Your task to perform on an android device: Search for vegetarian restaurants on Maps Image 0: 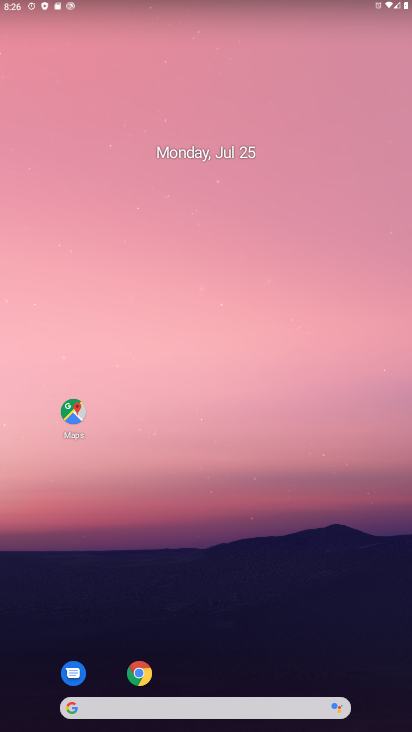
Step 0: drag from (315, 593) to (40, 61)
Your task to perform on an android device: Search for vegetarian restaurants on Maps Image 1: 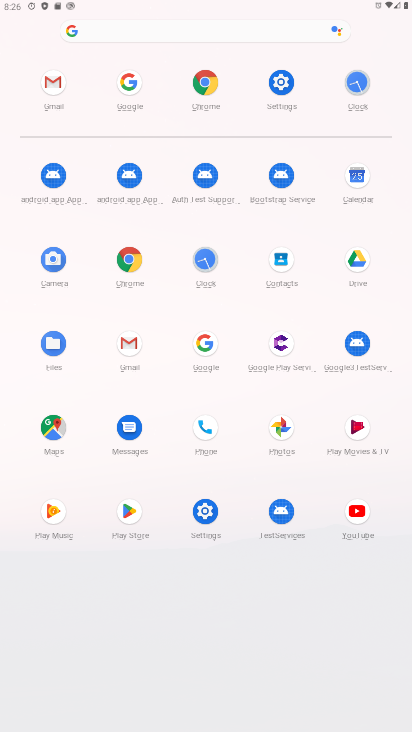
Step 1: click (59, 435)
Your task to perform on an android device: Search for vegetarian restaurants on Maps Image 2: 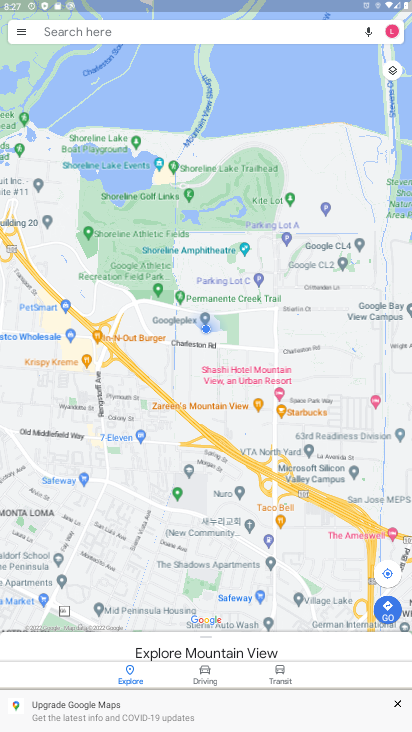
Step 2: click (157, 27)
Your task to perform on an android device: Search for vegetarian restaurants on Maps Image 3: 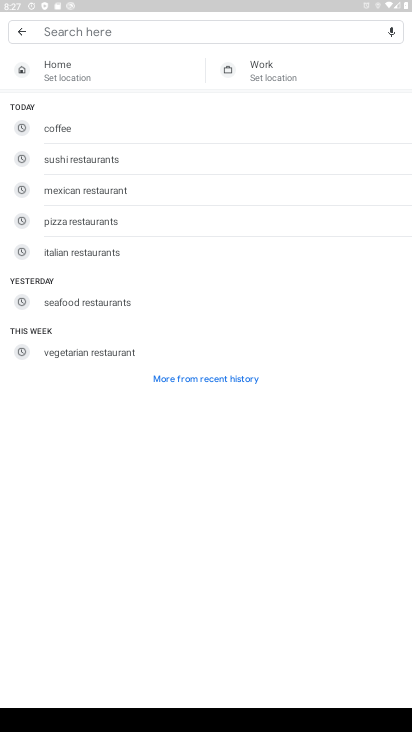
Step 3: click (86, 352)
Your task to perform on an android device: Search for vegetarian restaurants on Maps Image 4: 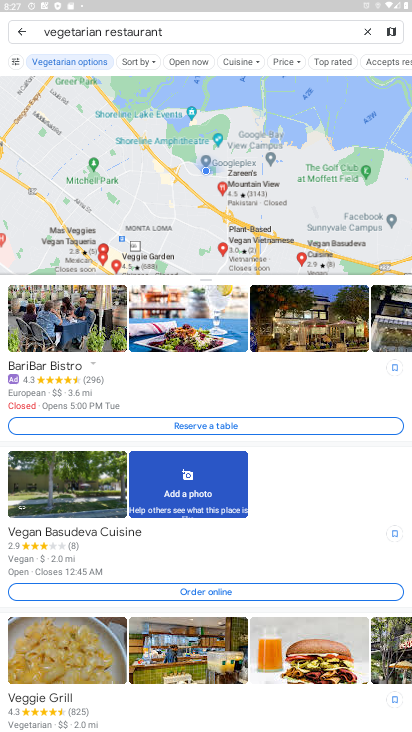
Step 4: task complete